Your task to perform on an android device: turn off airplane mode Image 0: 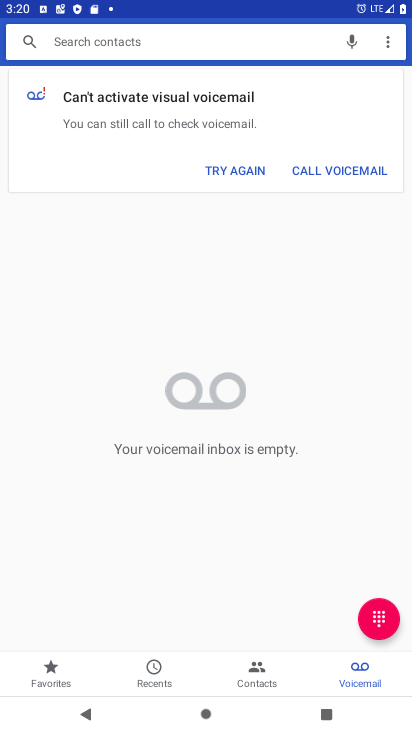
Step 0: press home button
Your task to perform on an android device: turn off airplane mode Image 1: 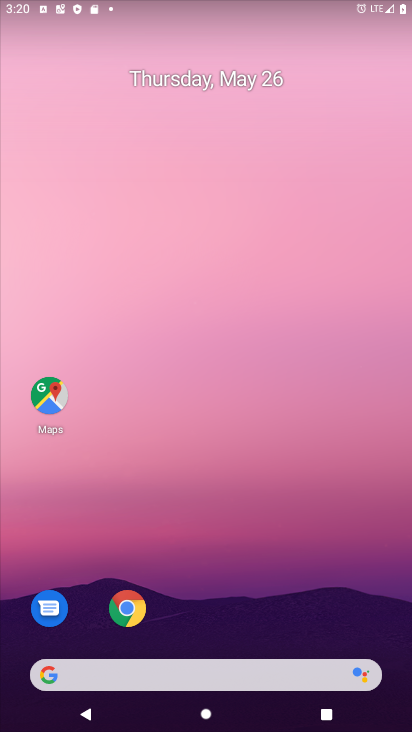
Step 1: drag from (369, 611) to (308, 45)
Your task to perform on an android device: turn off airplane mode Image 2: 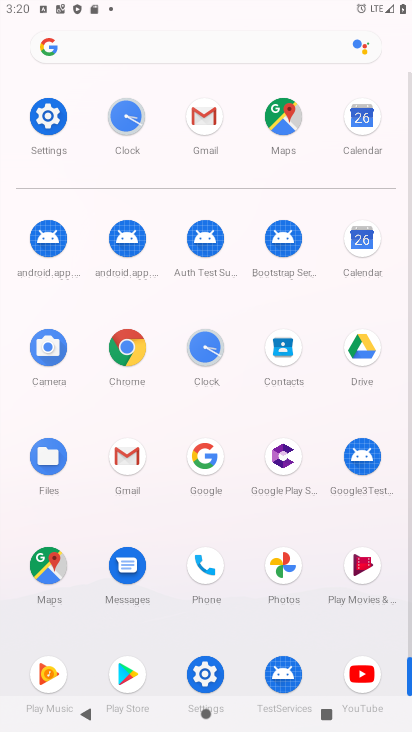
Step 2: click (205, 675)
Your task to perform on an android device: turn off airplane mode Image 3: 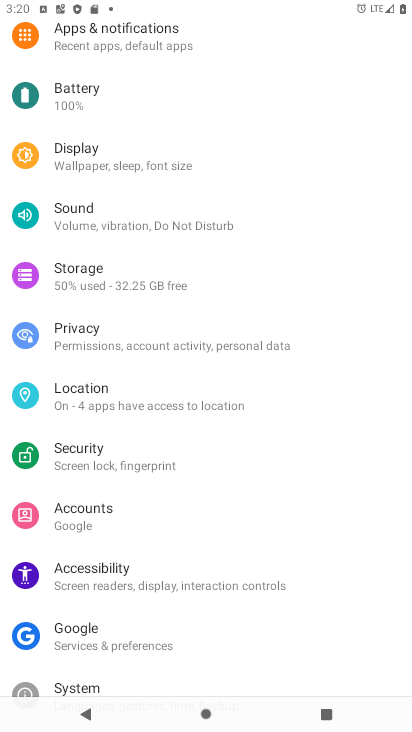
Step 3: drag from (258, 172) to (244, 387)
Your task to perform on an android device: turn off airplane mode Image 4: 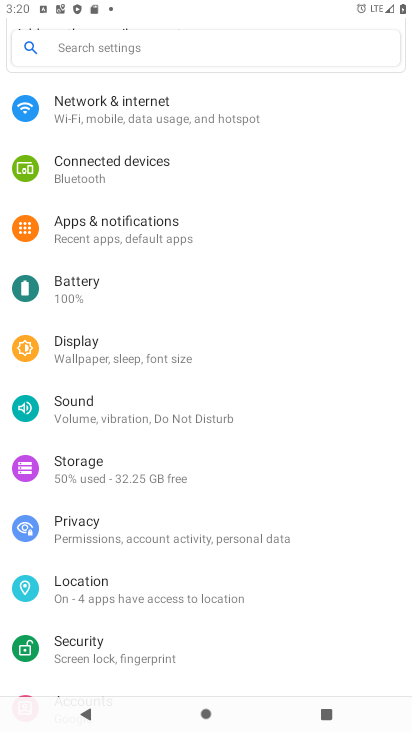
Step 4: click (117, 113)
Your task to perform on an android device: turn off airplane mode Image 5: 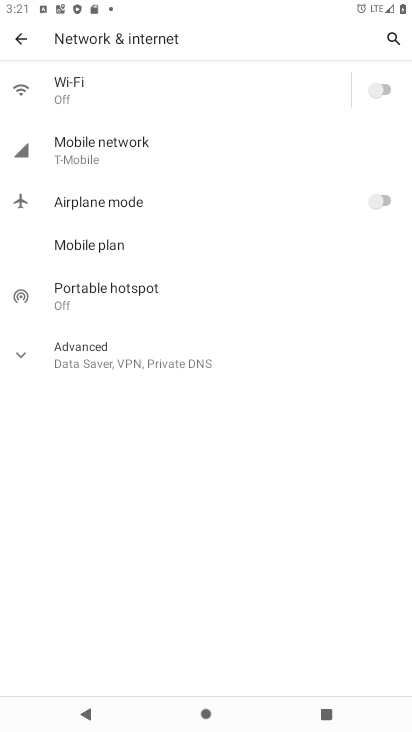
Step 5: task complete